Your task to perform on an android device: manage bookmarks in the chrome app Image 0: 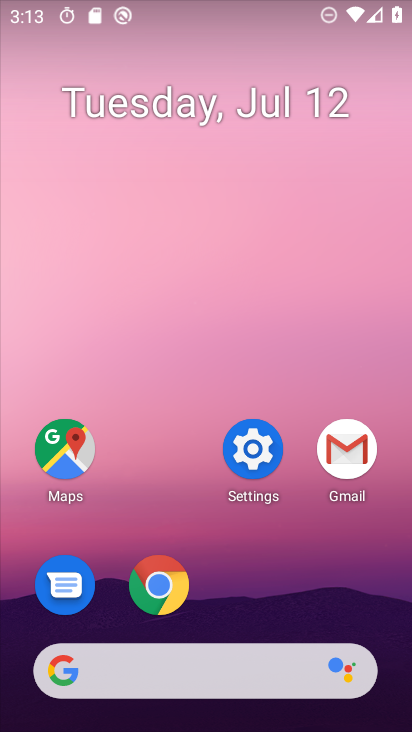
Step 0: click (157, 581)
Your task to perform on an android device: manage bookmarks in the chrome app Image 1: 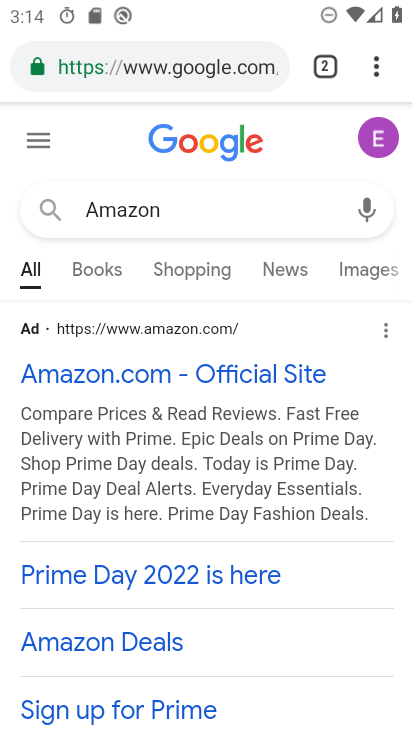
Step 1: click (378, 58)
Your task to perform on an android device: manage bookmarks in the chrome app Image 2: 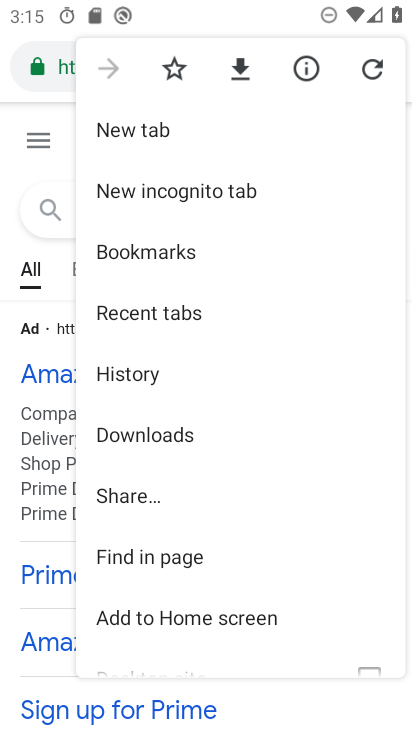
Step 2: click (156, 253)
Your task to perform on an android device: manage bookmarks in the chrome app Image 3: 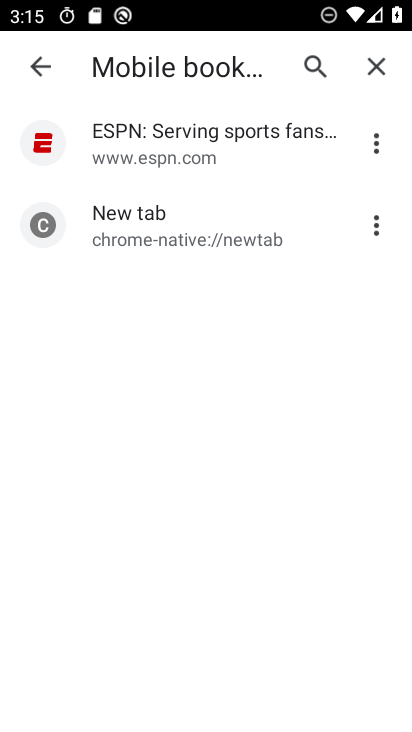
Step 3: click (377, 136)
Your task to perform on an android device: manage bookmarks in the chrome app Image 4: 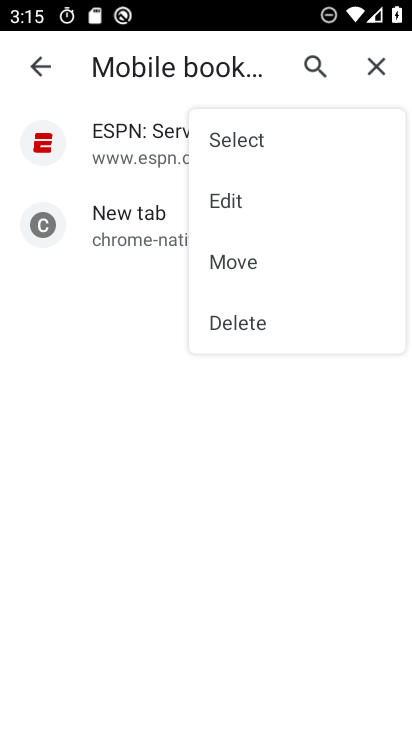
Step 4: click (220, 325)
Your task to perform on an android device: manage bookmarks in the chrome app Image 5: 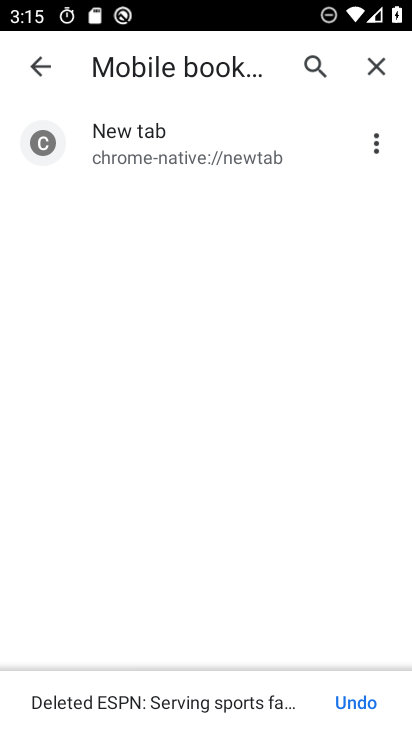
Step 5: task complete